Your task to perform on an android device: What is the news today? Image 0: 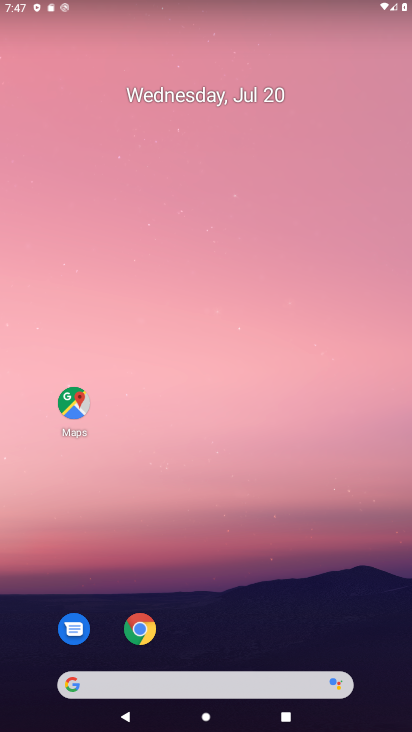
Step 0: drag from (237, 699) to (226, 299)
Your task to perform on an android device: What is the news today? Image 1: 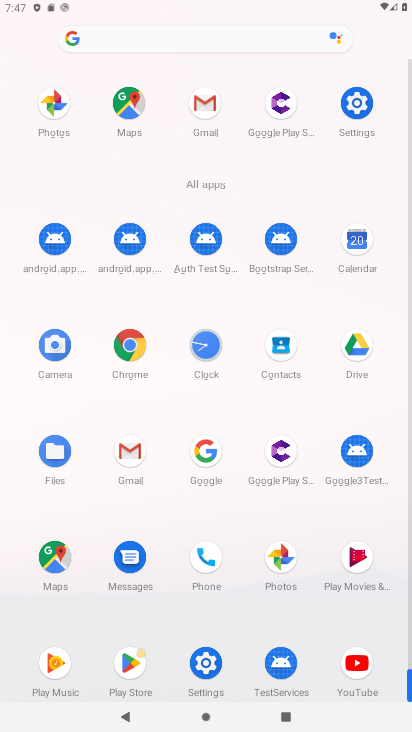
Step 1: click (130, 337)
Your task to perform on an android device: What is the news today? Image 2: 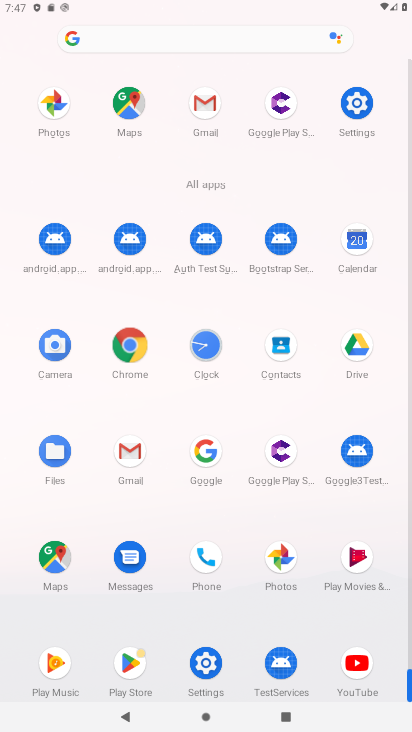
Step 2: click (133, 336)
Your task to perform on an android device: What is the news today? Image 3: 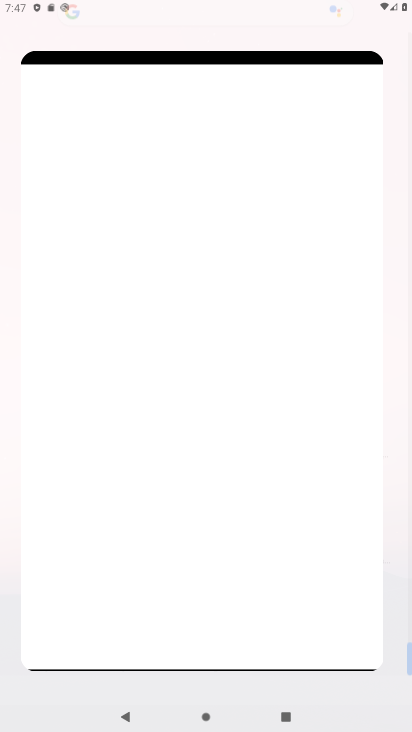
Step 3: click (133, 336)
Your task to perform on an android device: What is the news today? Image 4: 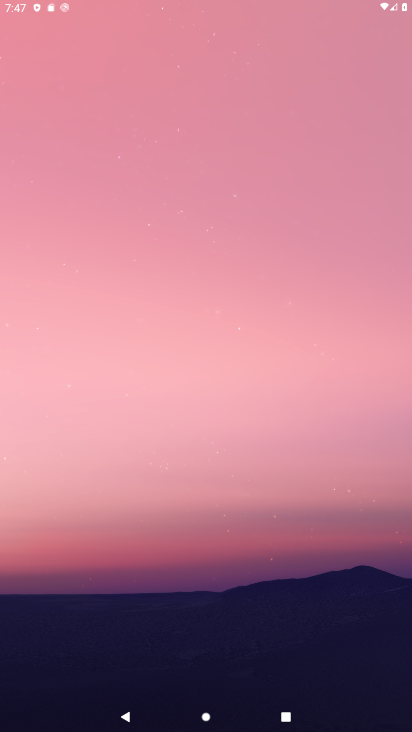
Step 4: click (133, 336)
Your task to perform on an android device: What is the news today? Image 5: 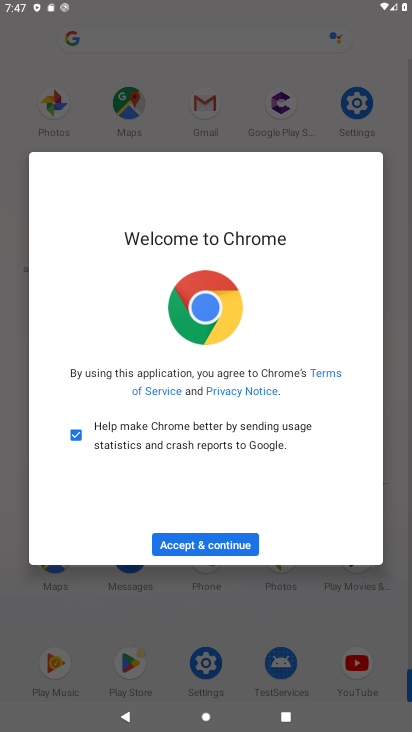
Step 5: click (218, 540)
Your task to perform on an android device: What is the news today? Image 6: 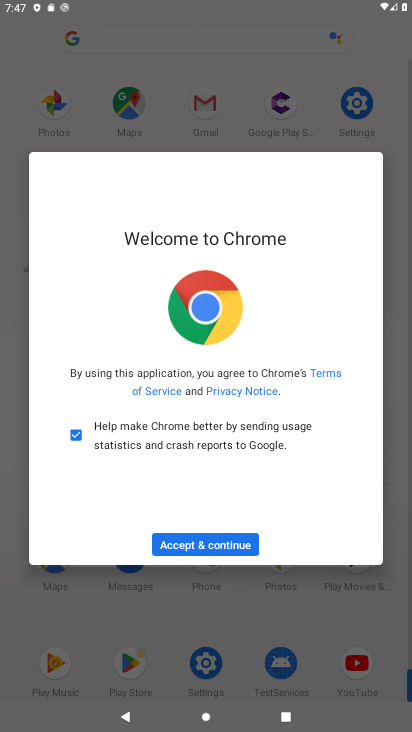
Step 6: click (219, 539)
Your task to perform on an android device: What is the news today? Image 7: 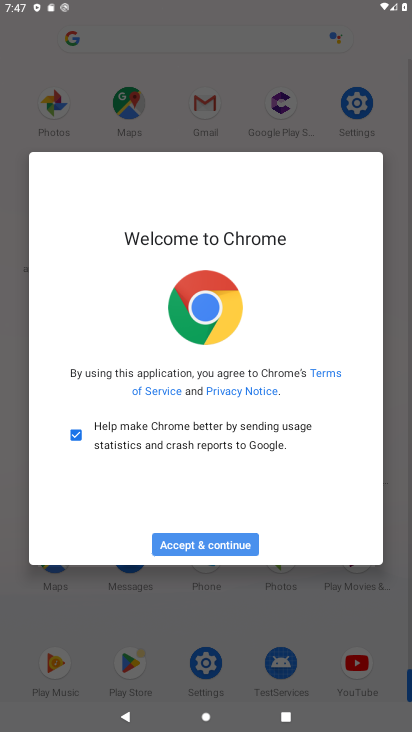
Step 7: click (223, 541)
Your task to perform on an android device: What is the news today? Image 8: 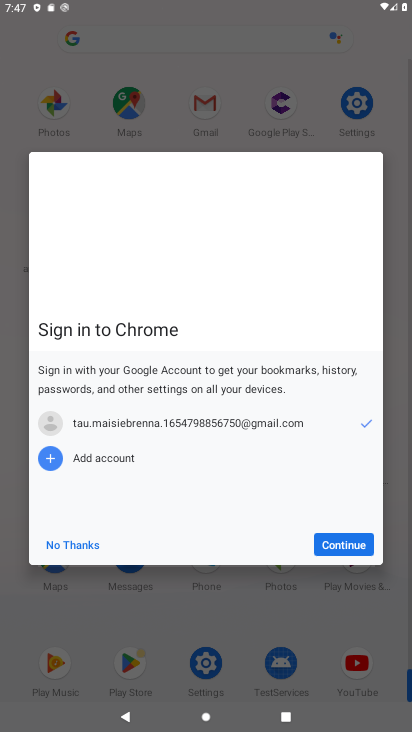
Step 8: click (223, 542)
Your task to perform on an android device: What is the news today? Image 9: 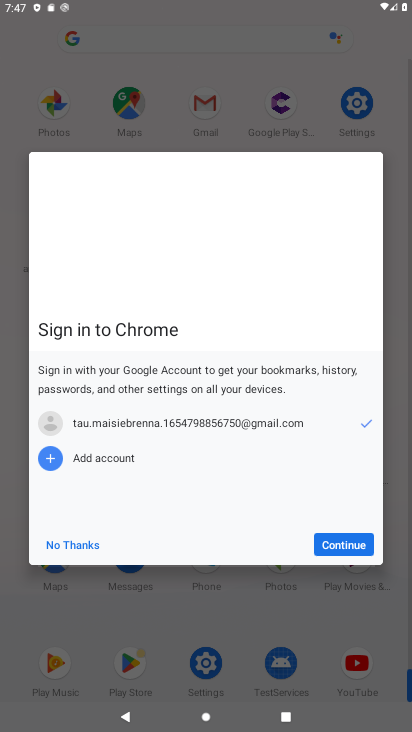
Step 9: click (225, 543)
Your task to perform on an android device: What is the news today? Image 10: 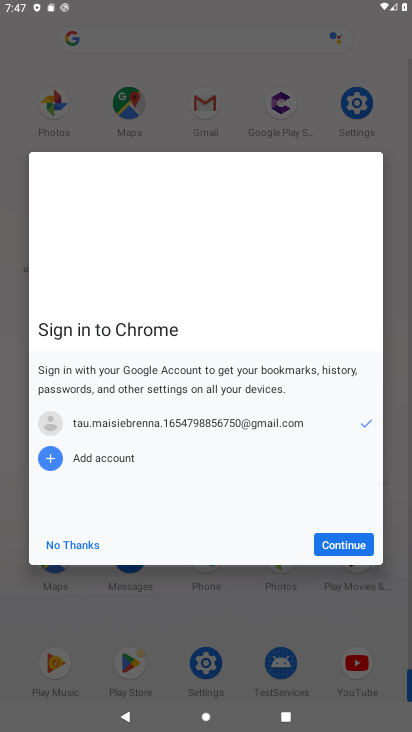
Step 10: click (226, 544)
Your task to perform on an android device: What is the news today? Image 11: 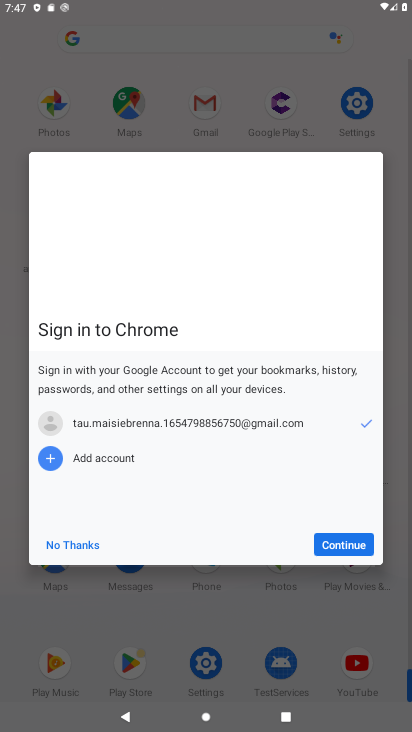
Step 11: click (60, 545)
Your task to perform on an android device: What is the news today? Image 12: 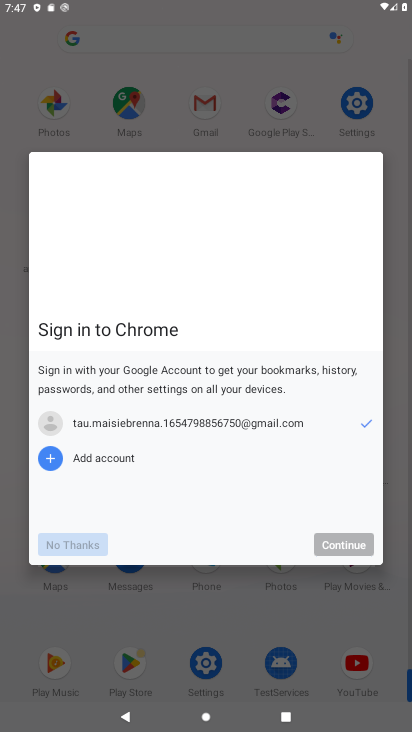
Step 12: click (72, 538)
Your task to perform on an android device: What is the news today? Image 13: 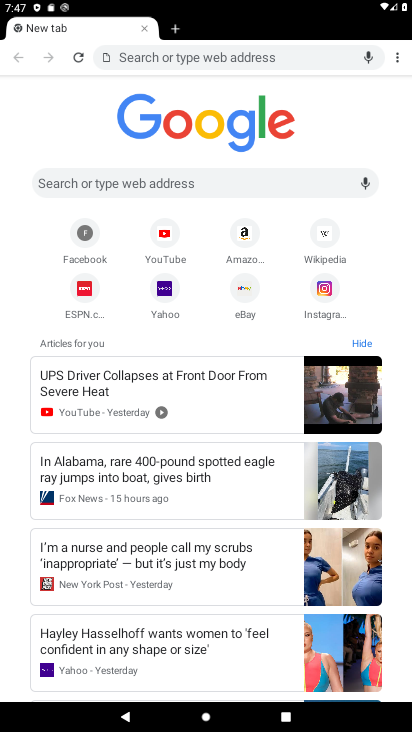
Step 13: task complete